Your task to perform on an android device: Open Google Maps and go to "Timeline" Image 0: 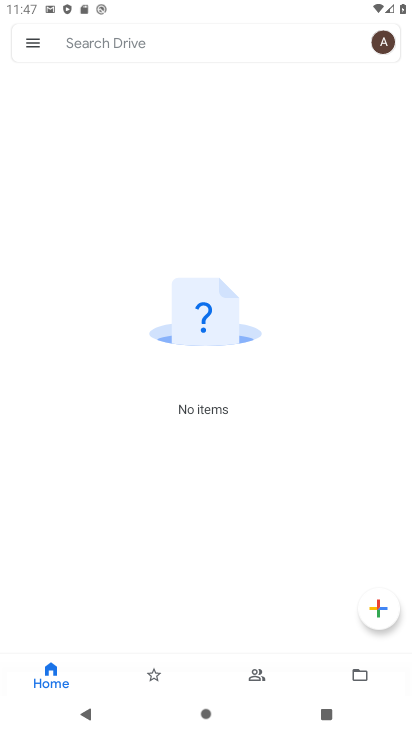
Step 0: press home button
Your task to perform on an android device: Open Google Maps and go to "Timeline" Image 1: 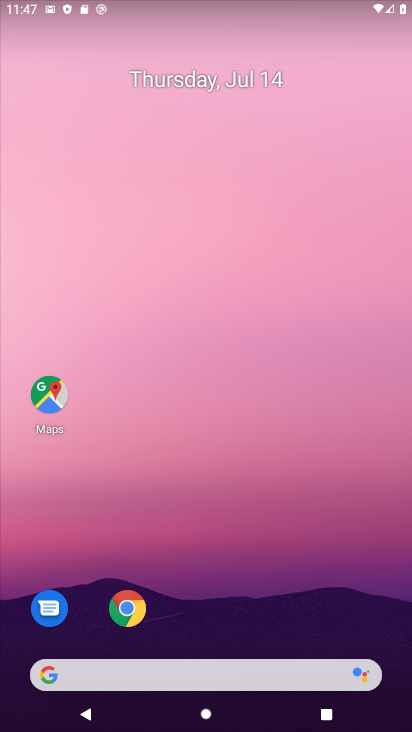
Step 1: click (40, 408)
Your task to perform on an android device: Open Google Maps and go to "Timeline" Image 2: 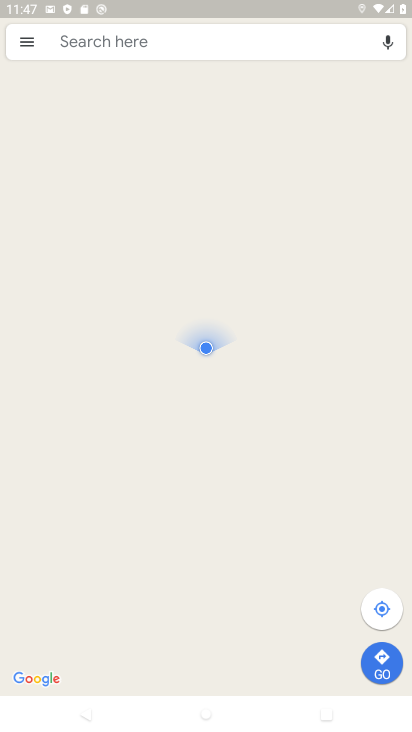
Step 2: click (38, 42)
Your task to perform on an android device: Open Google Maps and go to "Timeline" Image 3: 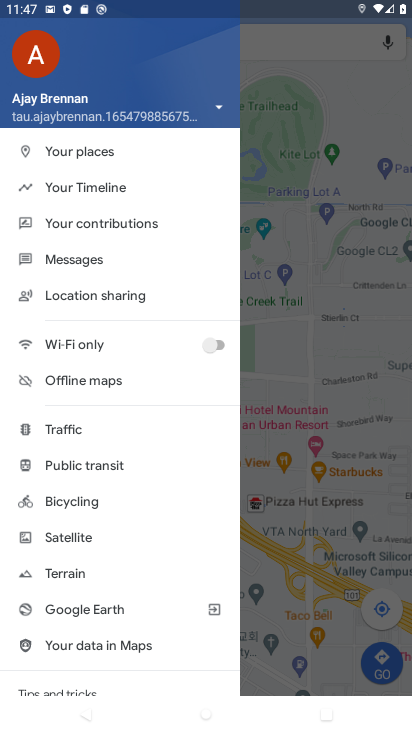
Step 3: click (108, 187)
Your task to perform on an android device: Open Google Maps and go to "Timeline" Image 4: 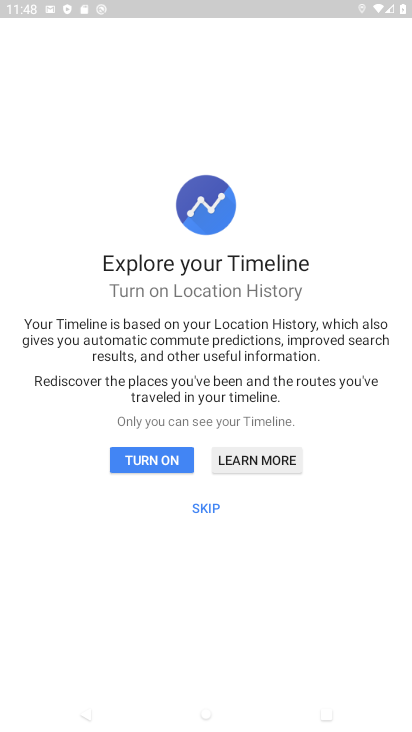
Step 4: click (164, 471)
Your task to perform on an android device: Open Google Maps and go to "Timeline" Image 5: 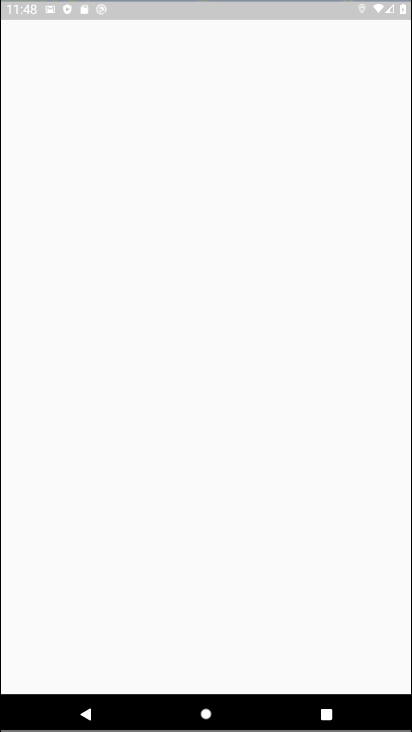
Step 5: task complete